Your task to perform on an android device: toggle sleep mode Image 0: 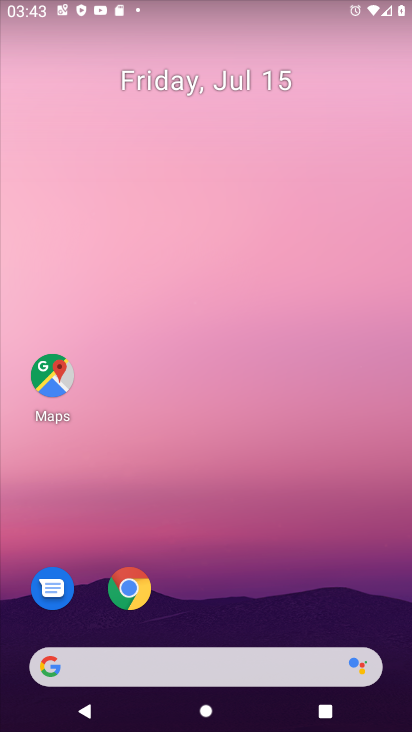
Step 0: drag from (203, 665) to (216, 191)
Your task to perform on an android device: toggle sleep mode Image 1: 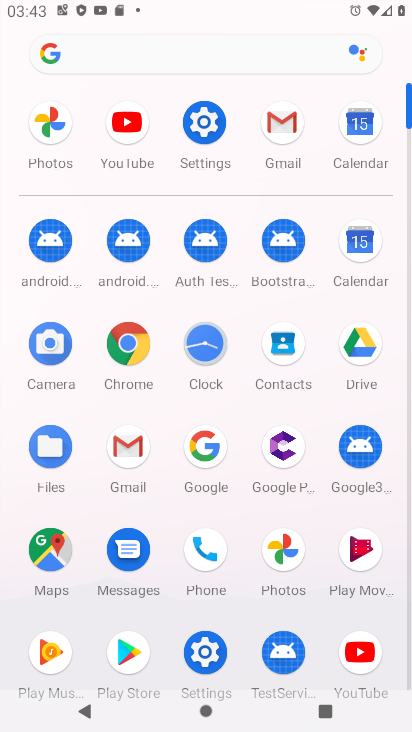
Step 1: click (202, 120)
Your task to perform on an android device: toggle sleep mode Image 2: 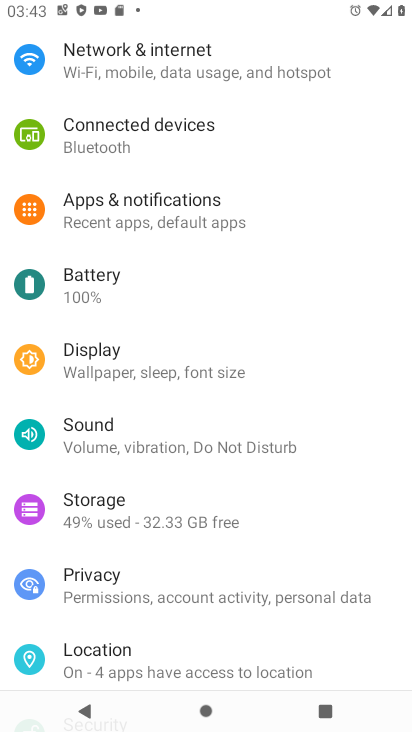
Step 2: click (124, 360)
Your task to perform on an android device: toggle sleep mode Image 3: 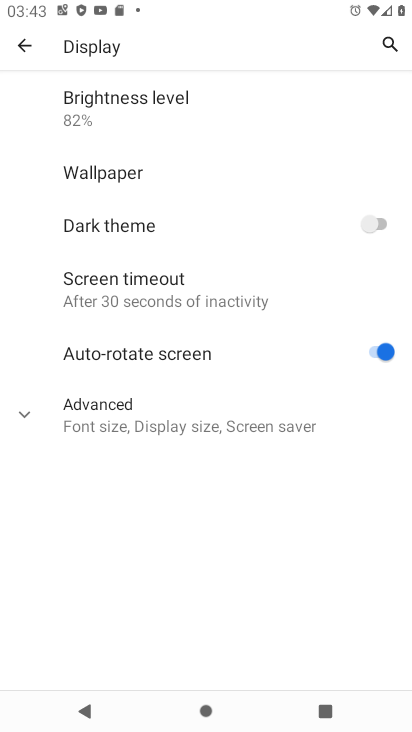
Step 3: click (127, 299)
Your task to perform on an android device: toggle sleep mode Image 4: 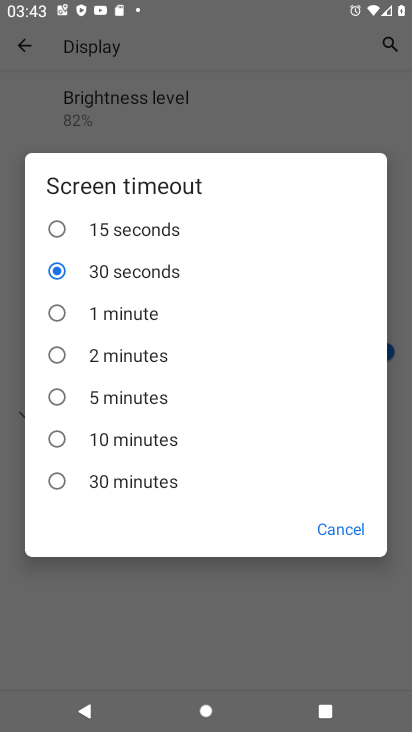
Step 4: click (353, 538)
Your task to perform on an android device: toggle sleep mode Image 5: 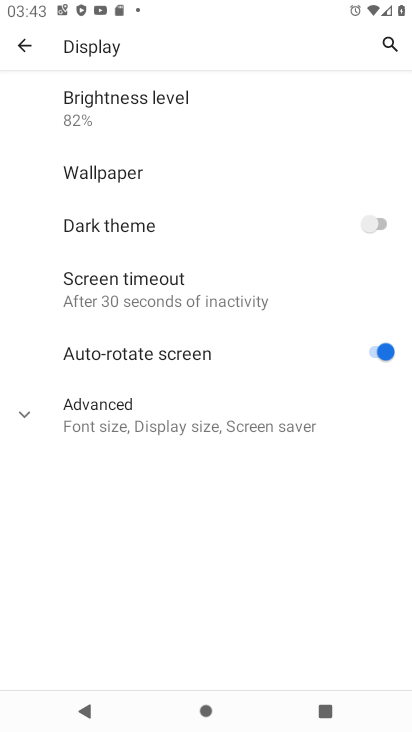
Step 5: click (87, 416)
Your task to perform on an android device: toggle sleep mode Image 6: 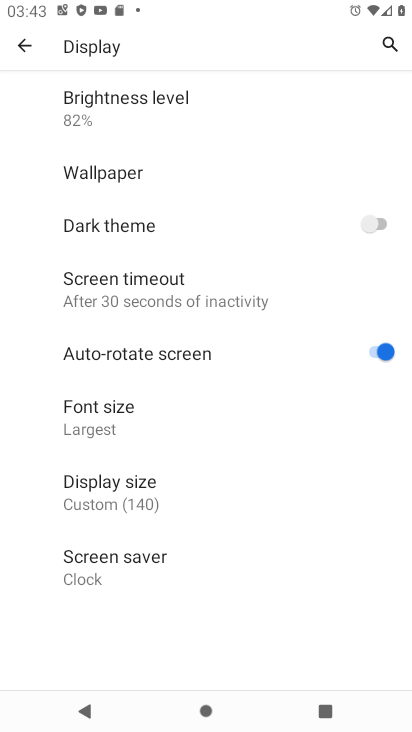
Step 6: click (80, 579)
Your task to perform on an android device: toggle sleep mode Image 7: 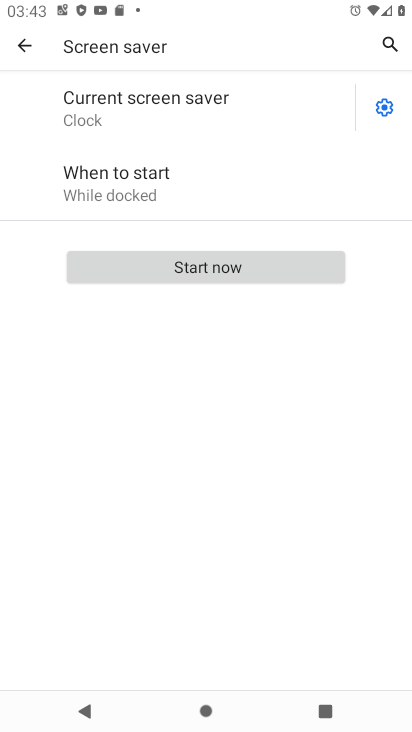
Step 7: click (387, 109)
Your task to perform on an android device: toggle sleep mode Image 8: 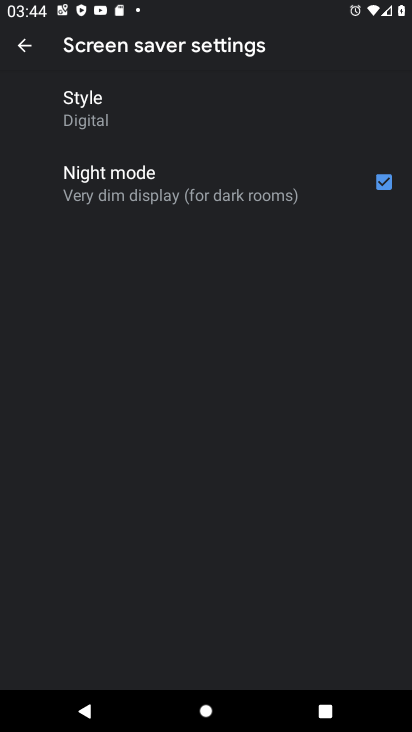
Step 8: task complete